Your task to perform on an android device: snooze an email in the gmail app Image 0: 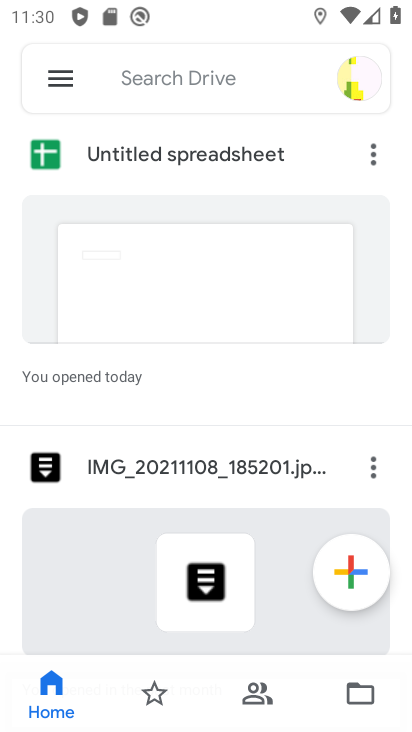
Step 0: press home button
Your task to perform on an android device: snooze an email in the gmail app Image 1: 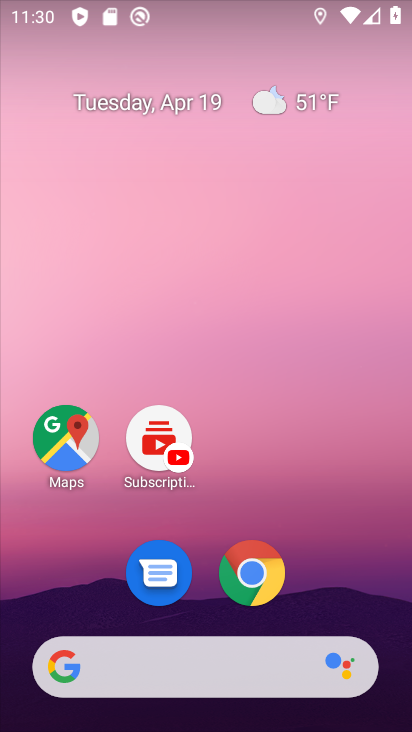
Step 1: drag from (295, 607) to (259, 108)
Your task to perform on an android device: snooze an email in the gmail app Image 2: 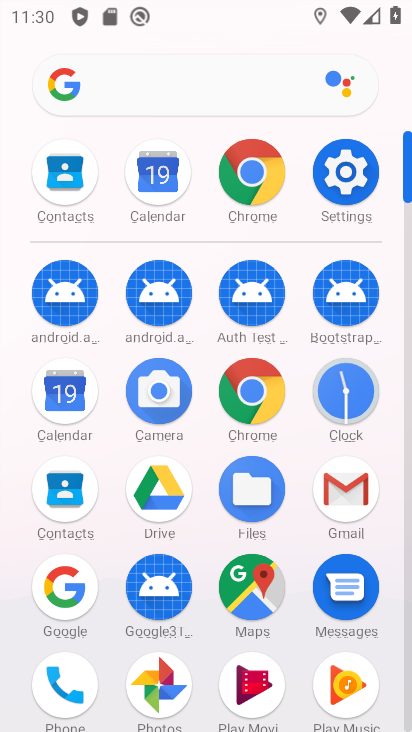
Step 2: click (342, 507)
Your task to perform on an android device: snooze an email in the gmail app Image 3: 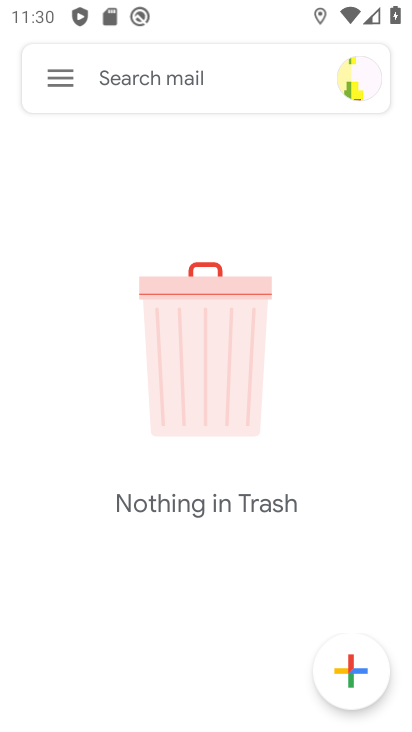
Step 3: click (54, 82)
Your task to perform on an android device: snooze an email in the gmail app Image 4: 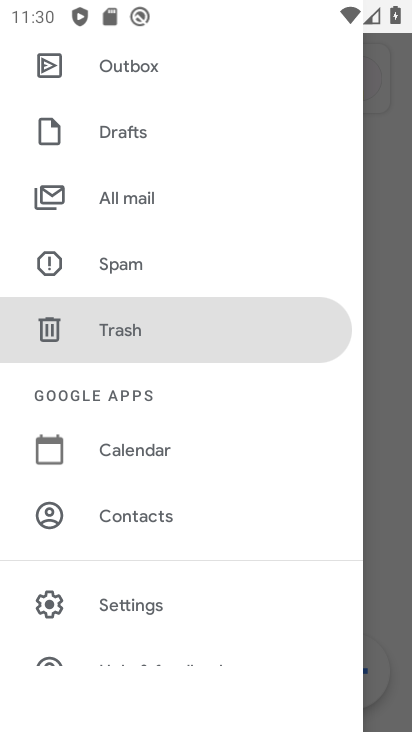
Step 4: drag from (134, 172) to (146, 584)
Your task to perform on an android device: snooze an email in the gmail app Image 5: 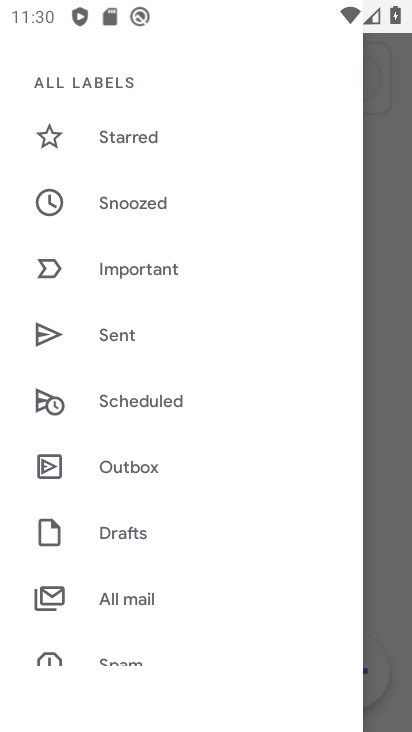
Step 5: click (125, 208)
Your task to perform on an android device: snooze an email in the gmail app Image 6: 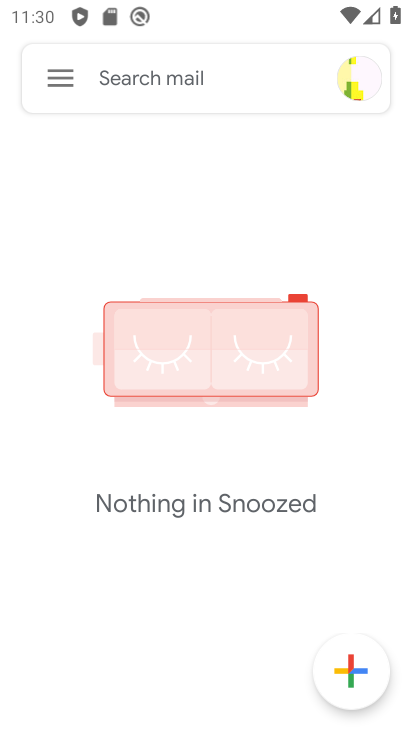
Step 6: task complete